Your task to perform on an android device: all mails in gmail Image 0: 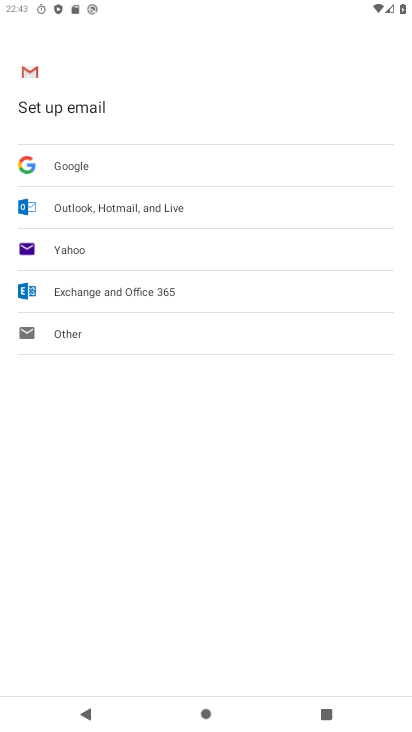
Step 0: press home button
Your task to perform on an android device: all mails in gmail Image 1: 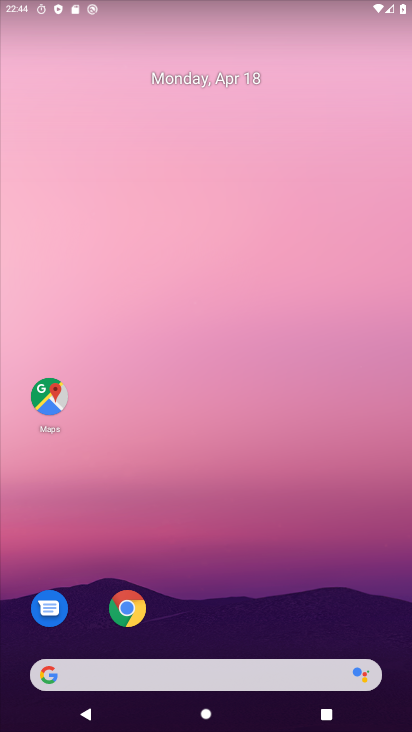
Step 1: drag from (231, 569) to (254, 171)
Your task to perform on an android device: all mails in gmail Image 2: 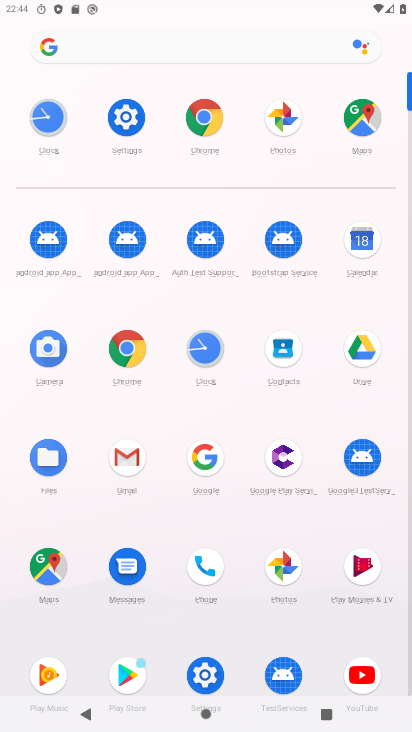
Step 2: click (126, 450)
Your task to perform on an android device: all mails in gmail Image 3: 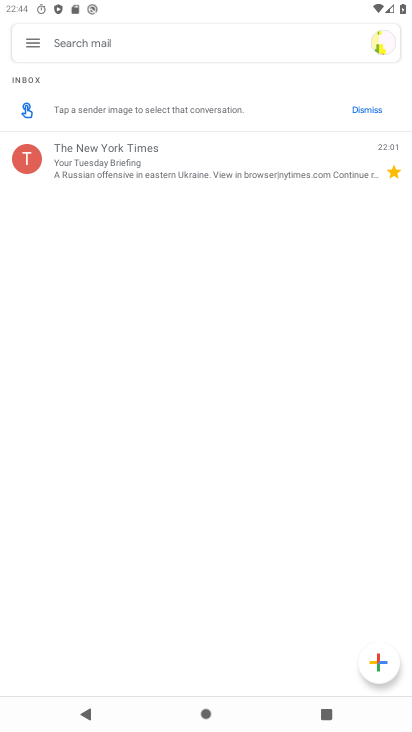
Step 3: click (27, 41)
Your task to perform on an android device: all mails in gmail Image 4: 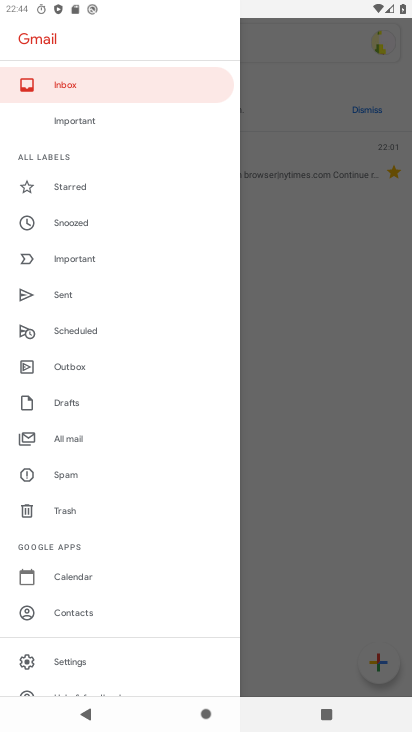
Step 4: click (104, 433)
Your task to perform on an android device: all mails in gmail Image 5: 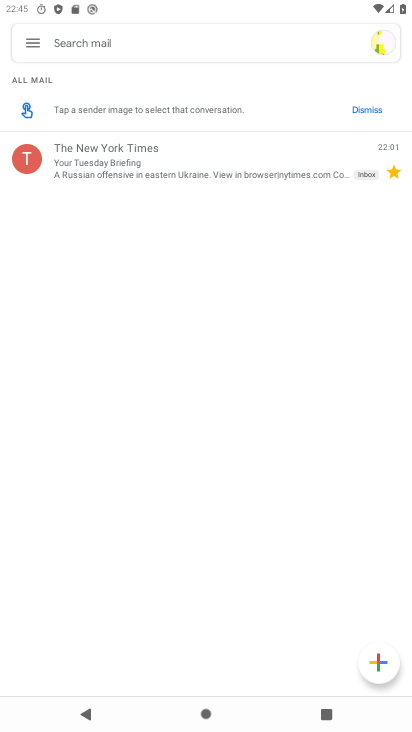
Step 5: task complete